Your task to perform on an android device: Open the Play Movies app and select the watchlist tab. Image 0: 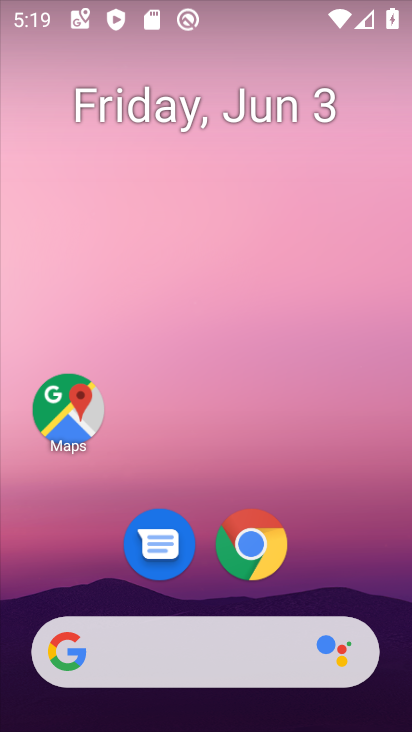
Step 0: drag from (325, 548) to (314, 71)
Your task to perform on an android device: Open the Play Movies app and select the watchlist tab. Image 1: 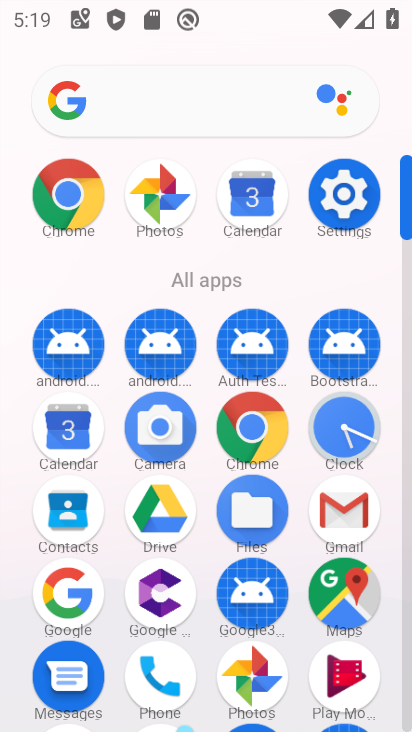
Step 1: drag from (288, 547) to (296, 182)
Your task to perform on an android device: Open the Play Movies app and select the watchlist tab. Image 2: 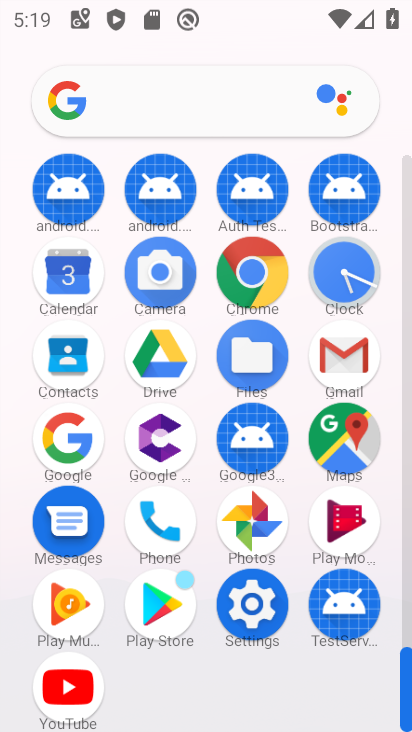
Step 2: click (58, 680)
Your task to perform on an android device: Open the Play Movies app and select the watchlist tab. Image 3: 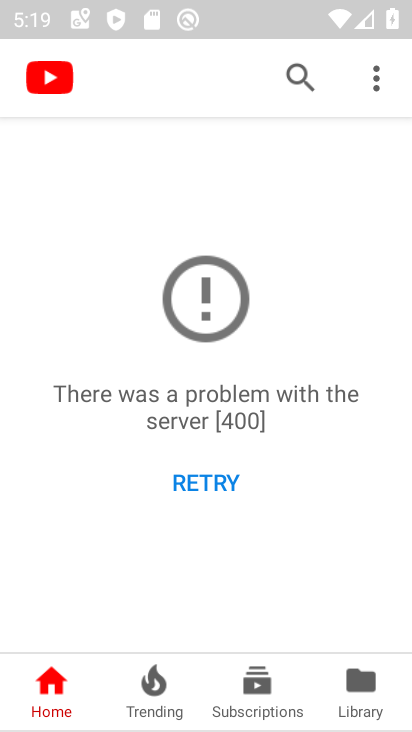
Step 3: press home button
Your task to perform on an android device: Open the Play Movies app and select the watchlist tab. Image 4: 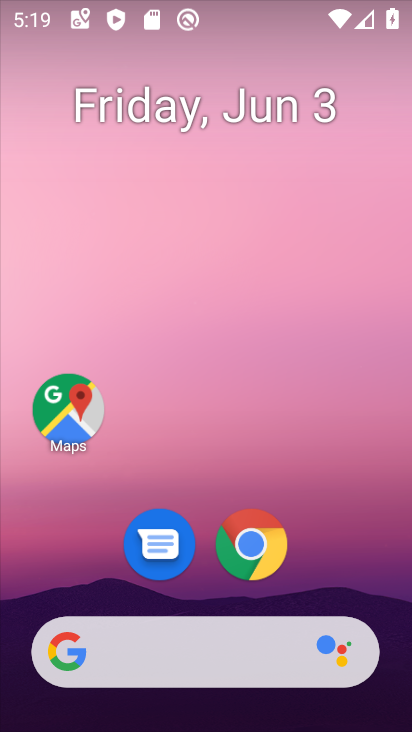
Step 4: drag from (365, 593) to (331, 128)
Your task to perform on an android device: Open the Play Movies app and select the watchlist tab. Image 5: 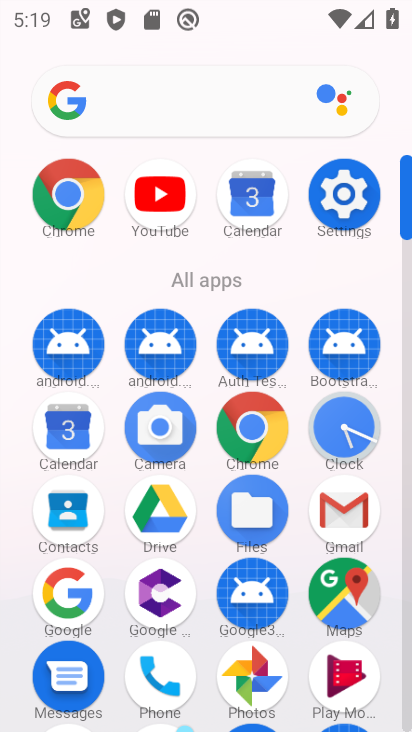
Step 5: drag from (297, 536) to (299, 153)
Your task to perform on an android device: Open the Play Movies app and select the watchlist tab. Image 6: 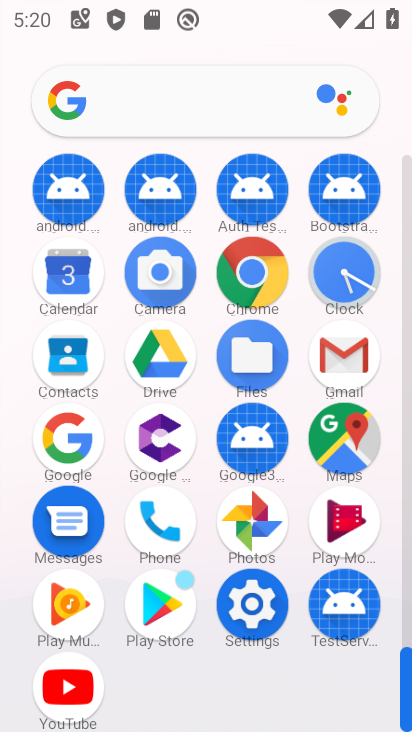
Step 6: click (356, 513)
Your task to perform on an android device: Open the Play Movies app and select the watchlist tab. Image 7: 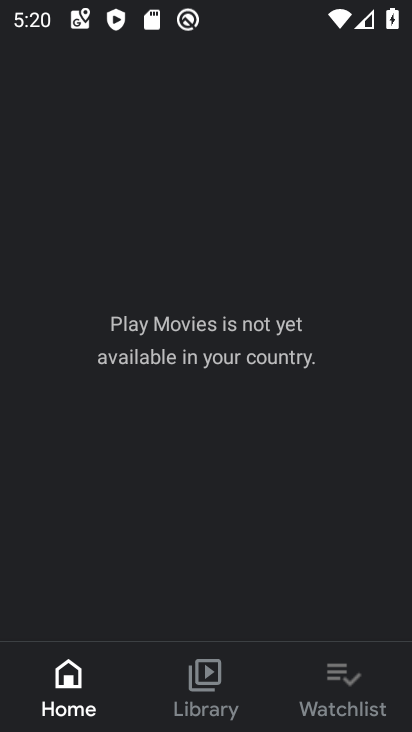
Step 7: click (349, 685)
Your task to perform on an android device: Open the Play Movies app and select the watchlist tab. Image 8: 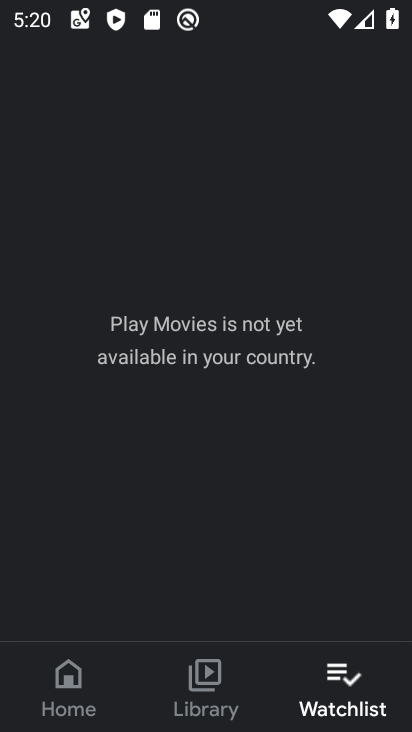
Step 8: task complete